Your task to perform on an android device: set the timer Image 0: 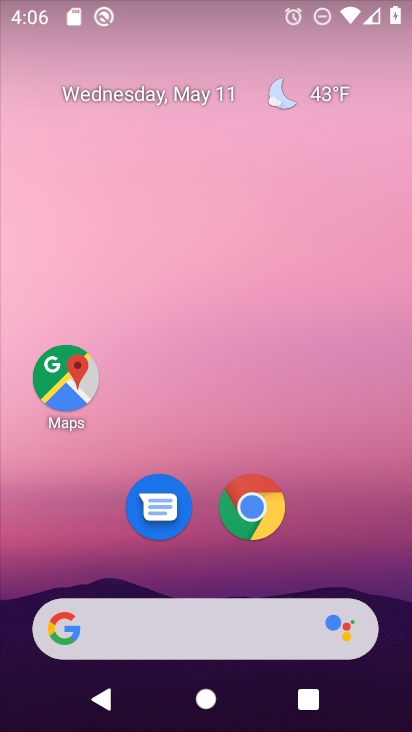
Step 0: drag from (395, 633) to (329, 32)
Your task to perform on an android device: set the timer Image 1: 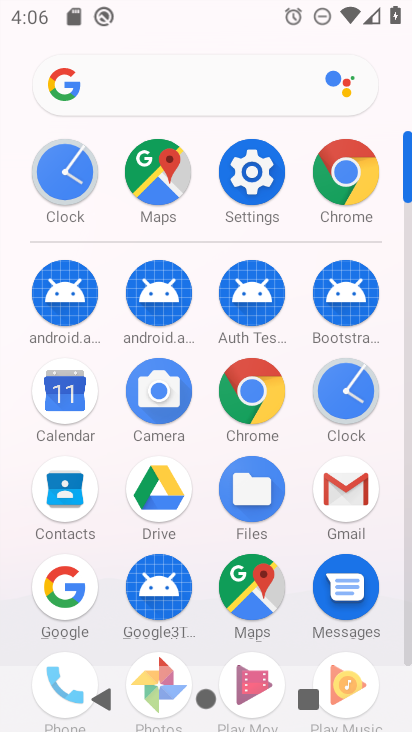
Step 1: click (407, 645)
Your task to perform on an android device: set the timer Image 2: 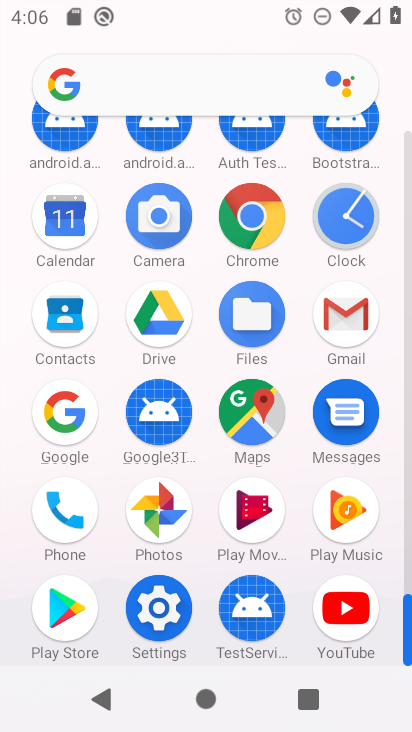
Step 2: click (344, 212)
Your task to perform on an android device: set the timer Image 3: 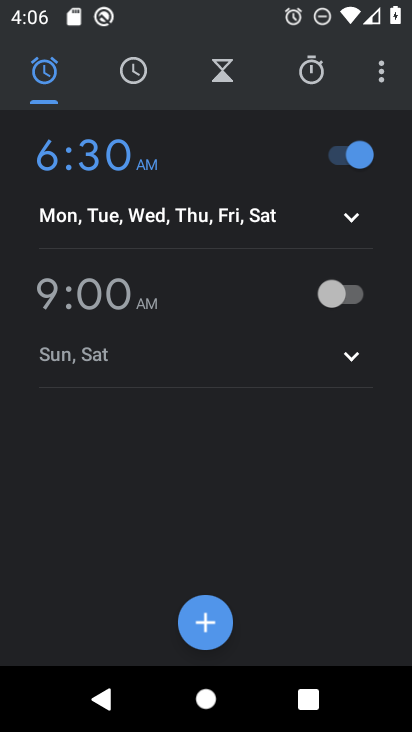
Step 3: click (221, 72)
Your task to perform on an android device: set the timer Image 4: 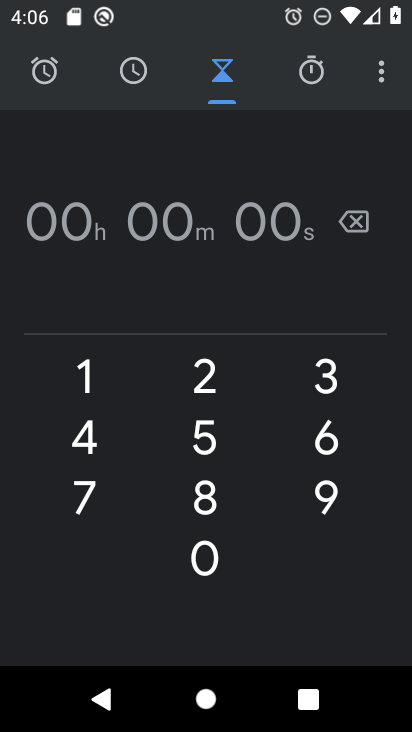
Step 4: click (77, 377)
Your task to perform on an android device: set the timer Image 5: 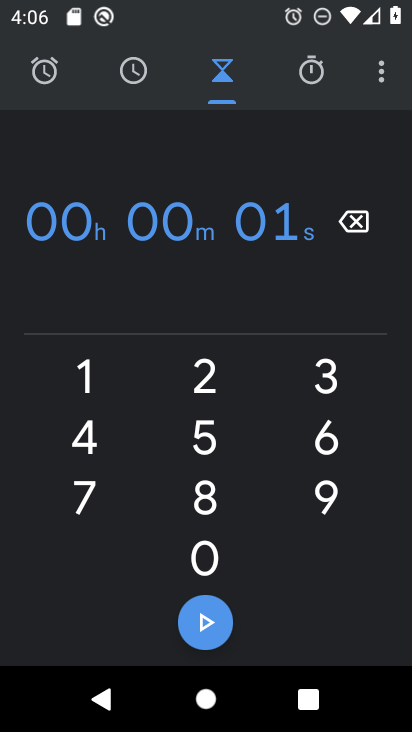
Step 5: click (319, 376)
Your task to perform on an android device: set the timer Image 6: 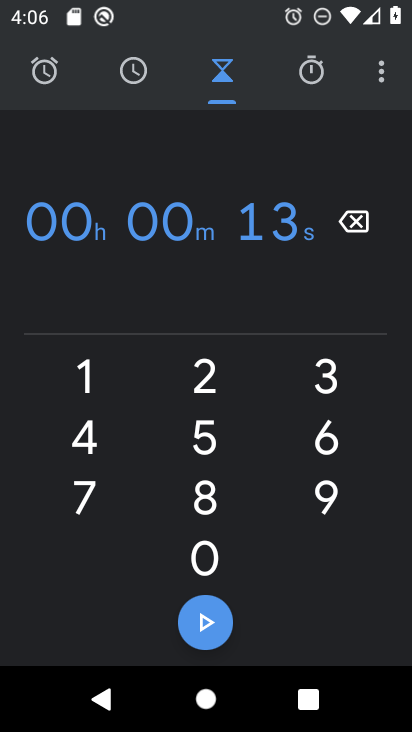
Step 6: click (204, 561)
Your task to perform on an android device: set the timer Image 7: 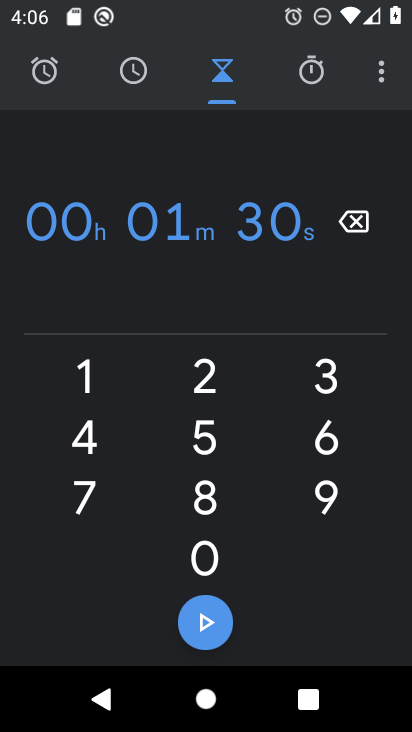
Step 7: click (204, 561)
Your task to perform on an android device: set the timer Image 8: 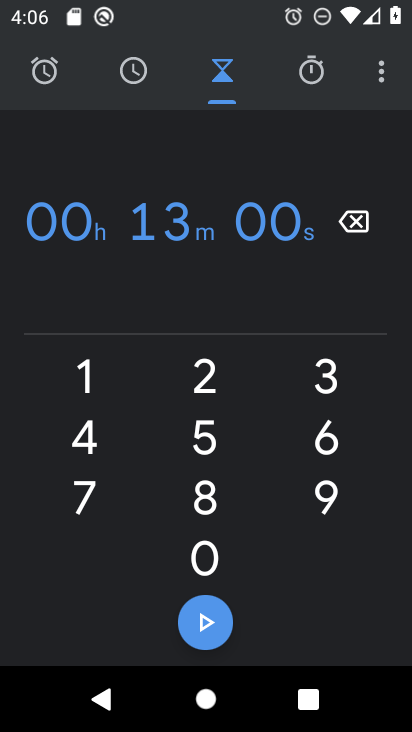
Step 8: click (204, 561)
Your task to perform on an android device: set the timer Image 9: 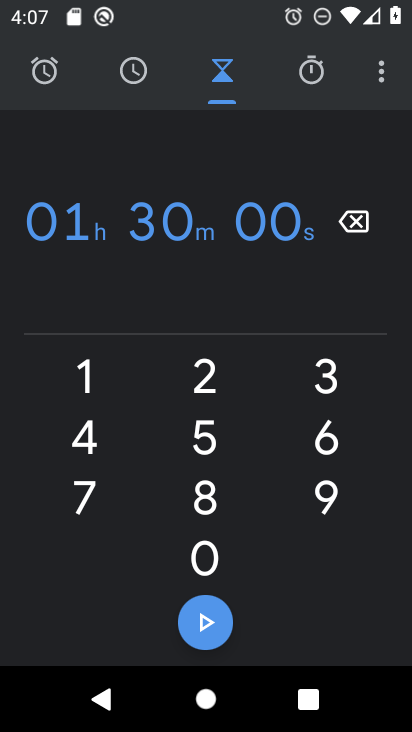
Step 9: task complete